Your task to perform on an android device: turn on javascript in the chrome app Image 0: 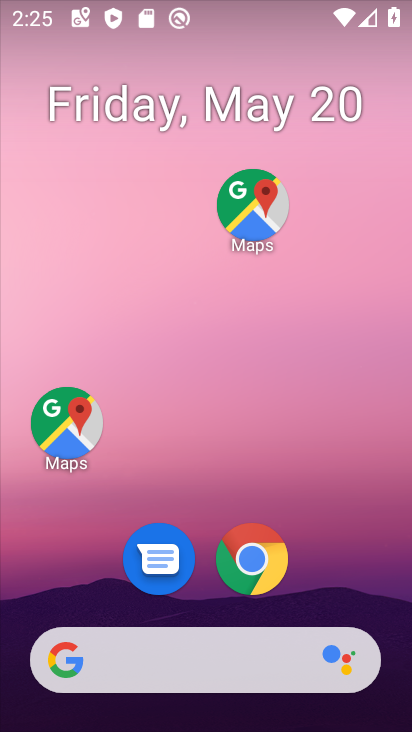
Step 0: click (253, 557)
Your task to perform on an android device: turn on javascript in the chrome app Image 1: 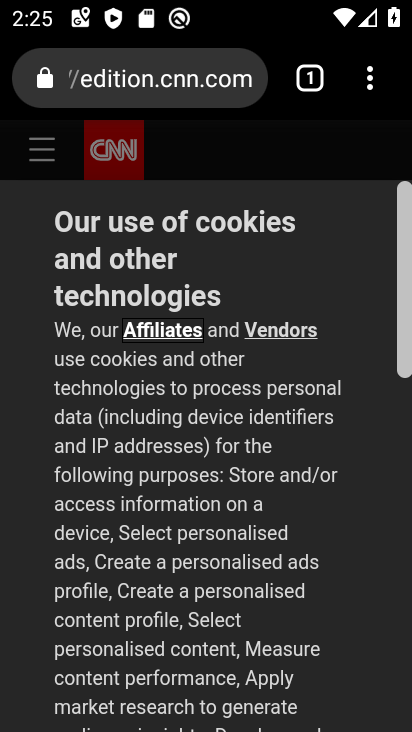
Step 1: click (371, 81)
Your task to perform on an android device: turn on javascript in the chrome app Image 2: 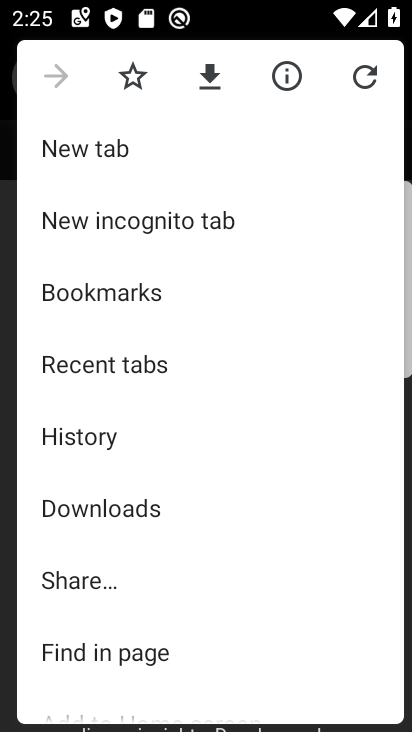
Step 2: drag from (157, 596) to (198, 416)
Your task to perform on an android device: turn on javascript in the chrome app Image 3: 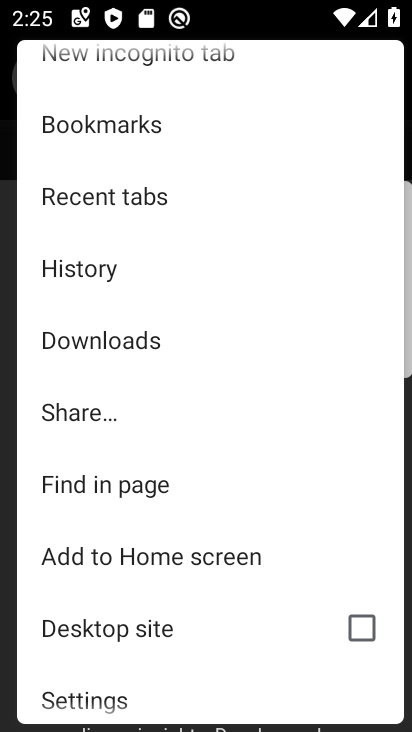
Step 3: drag from (187, 583) to (225, 484)
Your task to perform on an android device: turn on javascript in the chrome app Image 4: 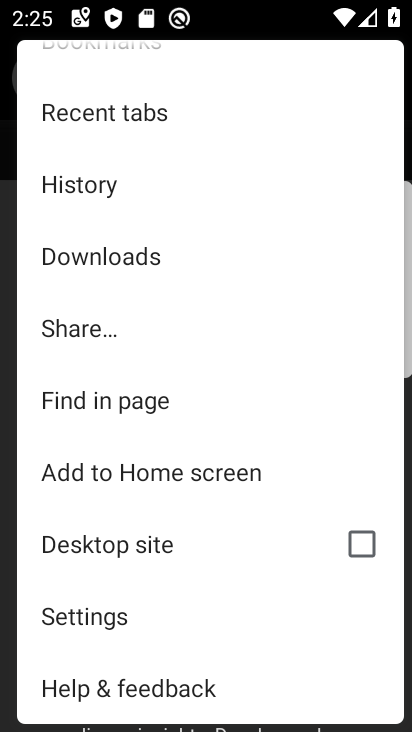
Step 4: click (111, 619)
Your task to perform on an android device: turn on javascript in the chrome app Image 5: 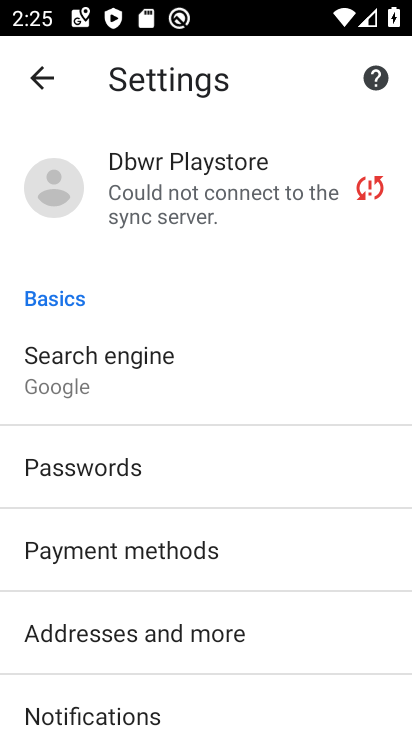
Step 5: drag from (167, 651) to (236, 503)
Your task to perform on an android device: turn on javascript in the chrome app Image 6: 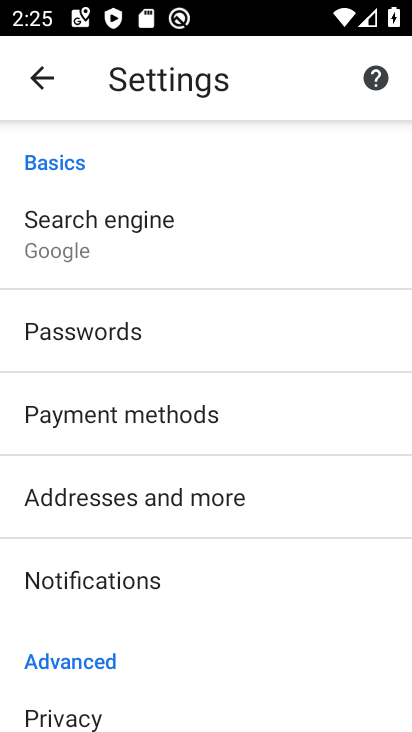
Step 6: drag from (236, 329) to (269, 272)
Your task to perform on an android device: turn on javascript in the chrome app Image 7: 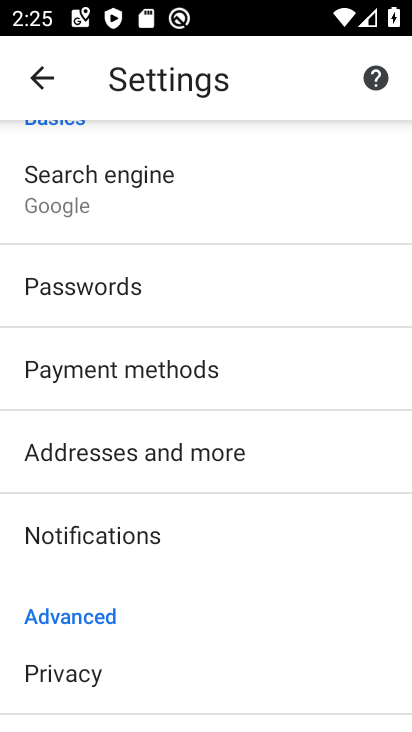
Step 7: drag from (137, 660) to (247, 105)
Your task to perform on an android device: turn on javascript in the chrome app Image 8: 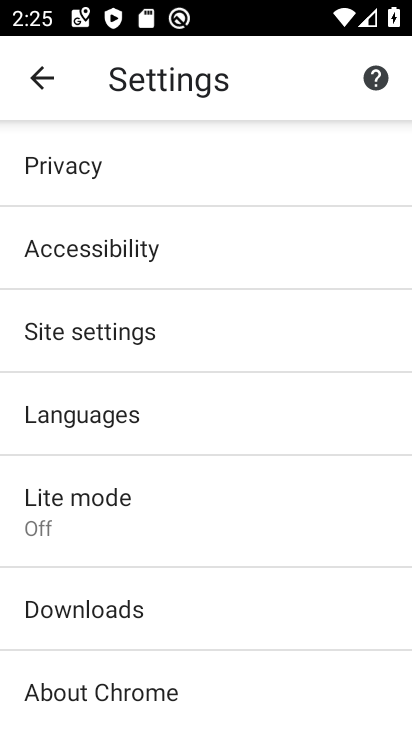
Step 8: click (99, 343)
Your task to perform on an android device: turn on javascript in the chrome app Image 9: 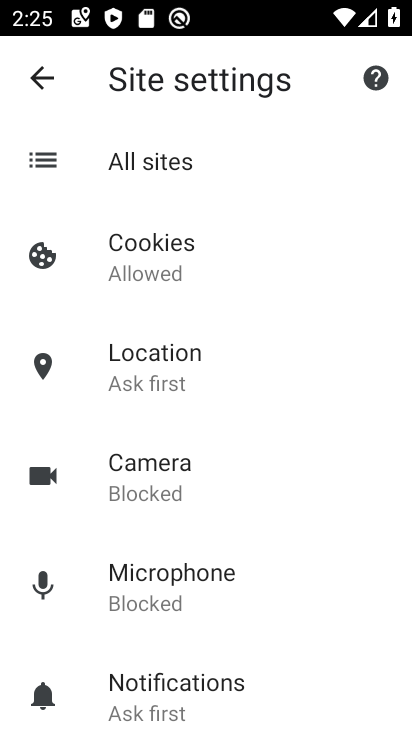
Step 9: drag from (172, 637) to (276, 301)
Your task to perform on an android device: turn on javascript in the chrome app Image 10: 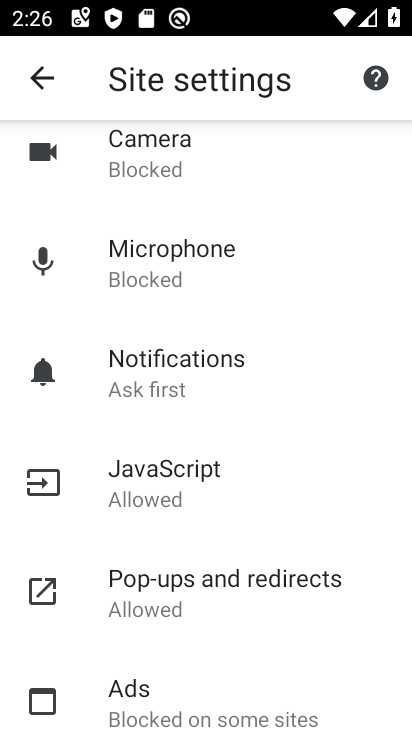
Step 10: click (174, 476)
Your task to perform on an android device: turn on javascript in the chrome app Image 11: 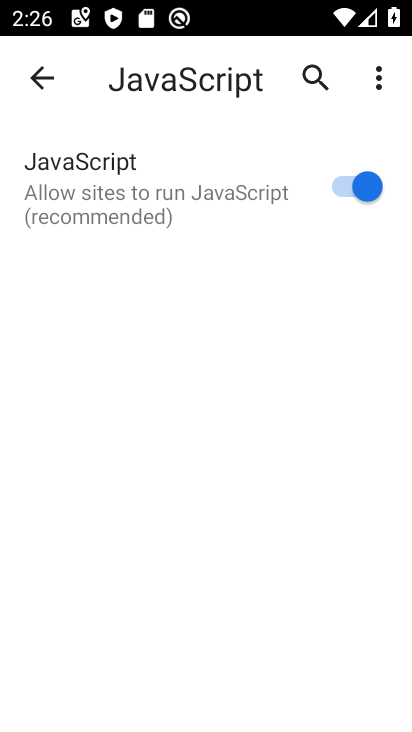
Step 11: task complete